Your task to perform on an android device: Open Wikipedia Image 0: 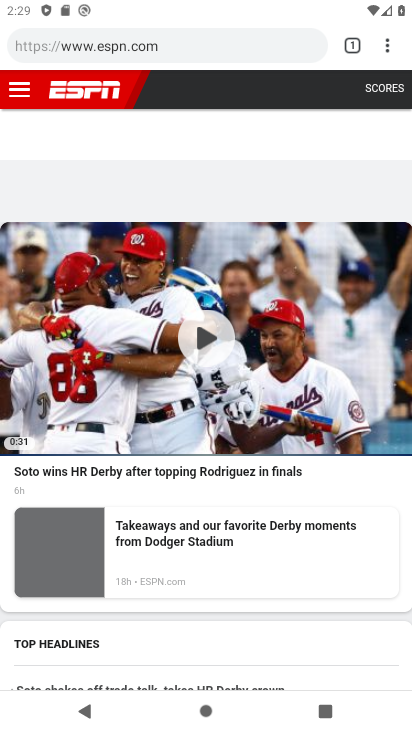
Step 0: press home button
Your task to perform on an android device: Open Wikipedia Image 1: 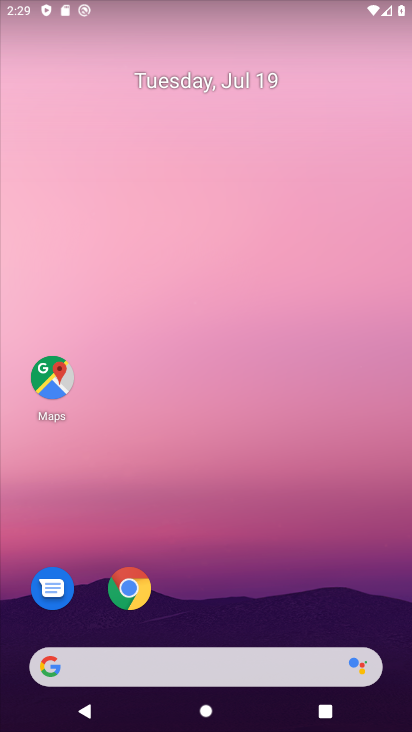
Step 1: click (129, 592)
Your task to perform on an android device: Open Wikipedia Image 2: 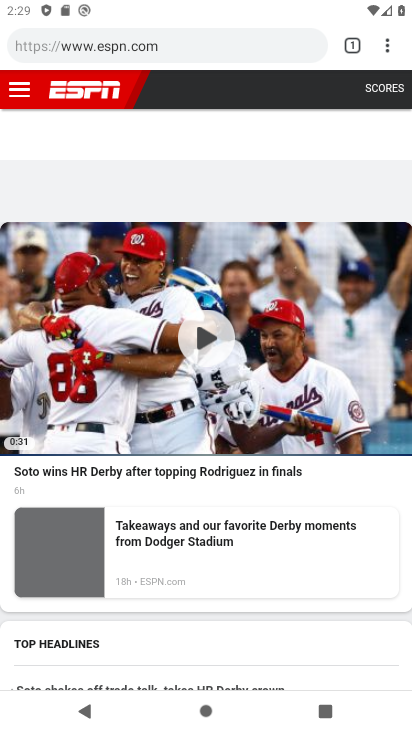
Step 2: click (352, 41)
Your task to perform on an android device: Open Wikipedia Image 3: 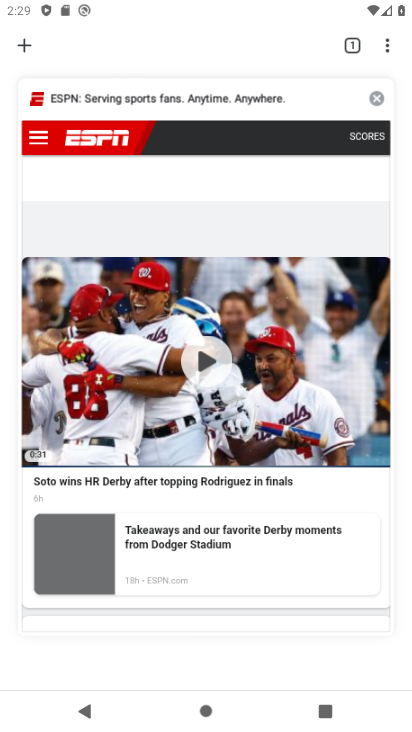
Step 3: click (21, 41)
Your task to perform on an android device: Open Wikipedia Image 4: 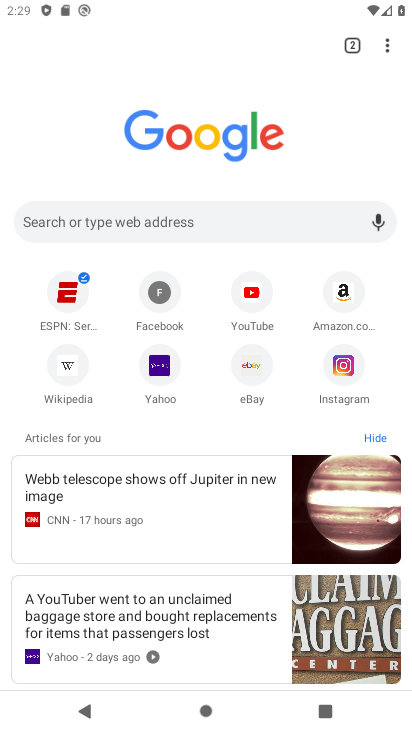
Step 4: click (64, 391)
Your task to perform on an android device: Open Wikipedia Image 5: 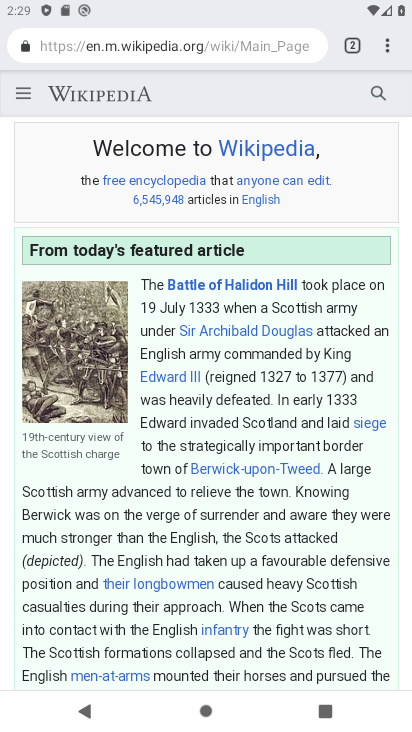
Step 5: task complete